Your task to perform on an android device: Is it going to rain today? Image 0: 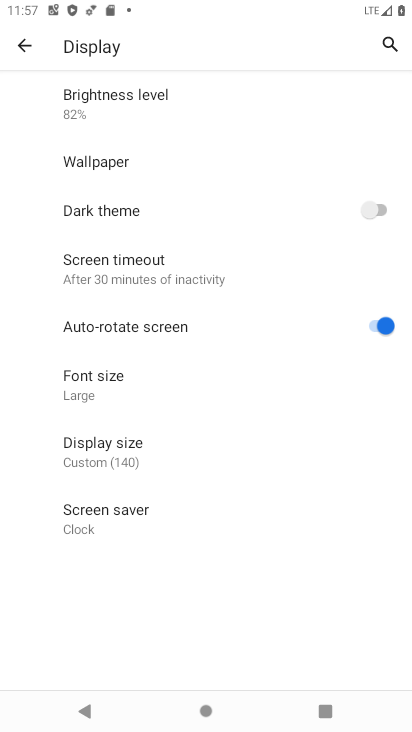
Step 0: press home button
Your task to perform on an android device: Is it going to rain today? Image 1: 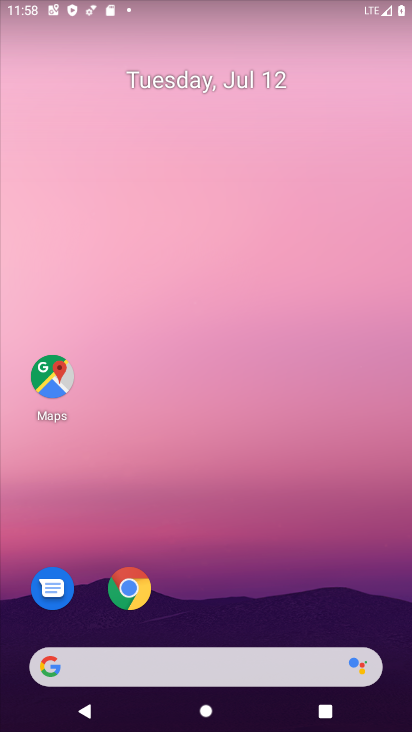
Step 1: drag from (396, 663) to (393, 47)
Your task to perform on an android device: Is it going to rain today? Image 2: 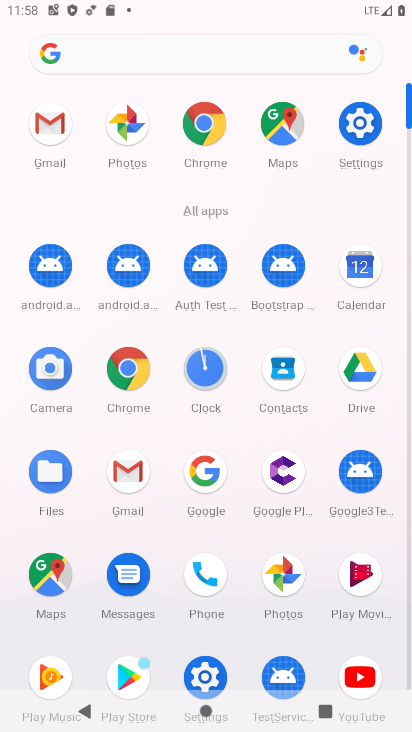
Step 2: click (198, 469)
Your task to perform on an android device: Is it going to rain today? Image 3: 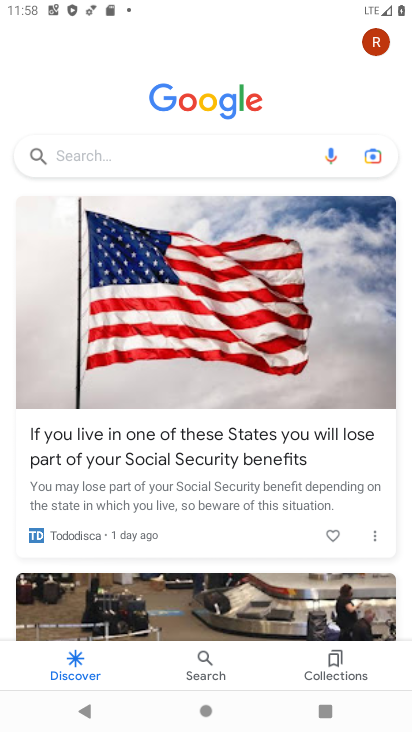
Step 3: task complete